Your task to perform on an android device: stop showing notifications on the lock screen Image 0: 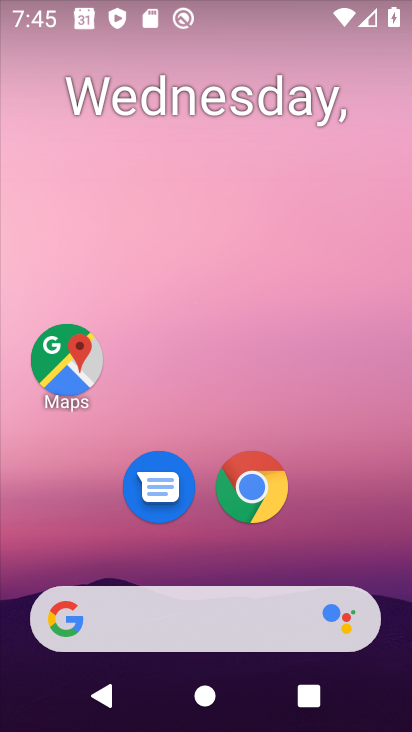
Step 0: drag from (377, 572) to (324, 7)
Your task to perform on an android device: stop showing notifications on the lock screen Image 1: 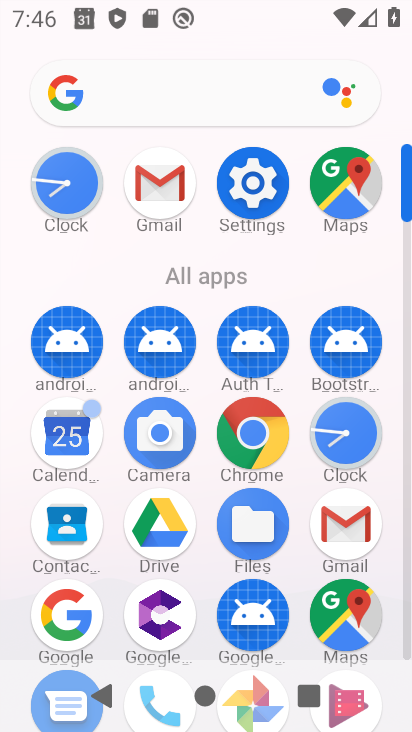
Step 1: click (256, 185)
Your task to perform on an android device: stop showing notifications on the lock screen Image 2: 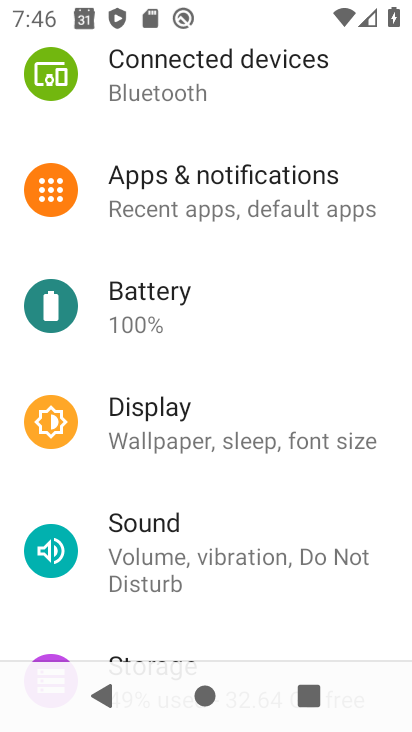
Step 2: click (250, 186)
Your task to perform on an android device: stop showing notifications on the lock screen Image 3: 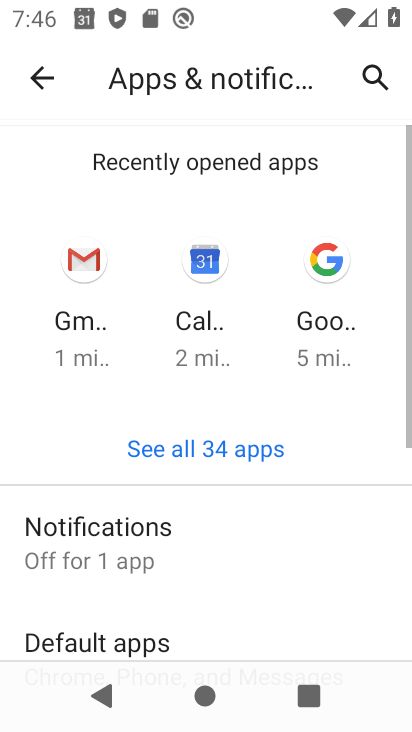
Step 3: drag from (213, 448) to (189, 174)
Your task to perform on an android device: stop showing notifications on the lock screen Image 4: 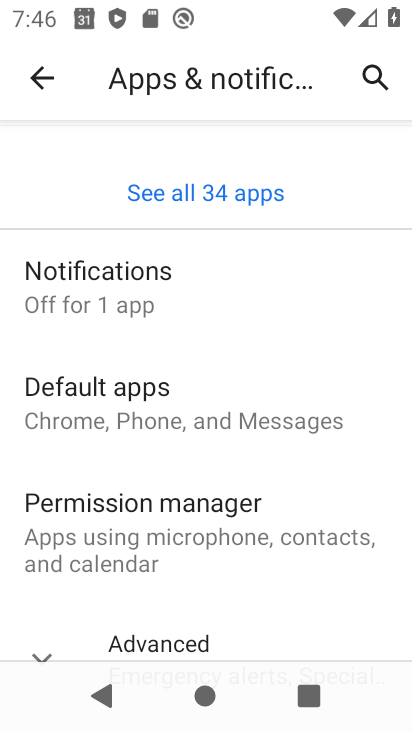
Step 4: click (75, 288)
Your task to perform on an android device: stop showing notifications on the lock screen Image 5: 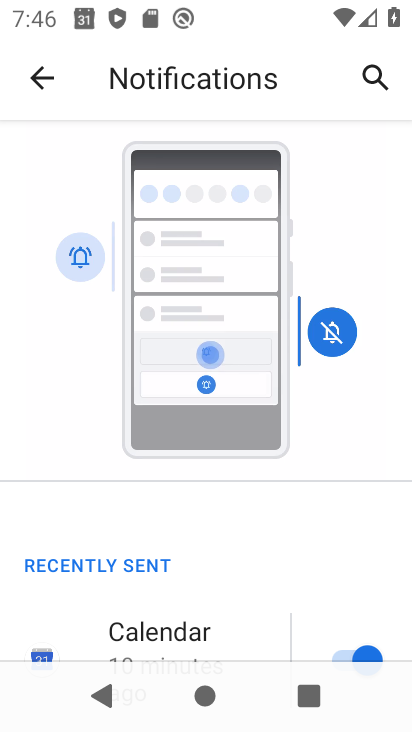
Step 5: drag from (122, 530) to (125, 90)
Your task to perform on an android device: stop showing notifications on the lock screen Image 6: 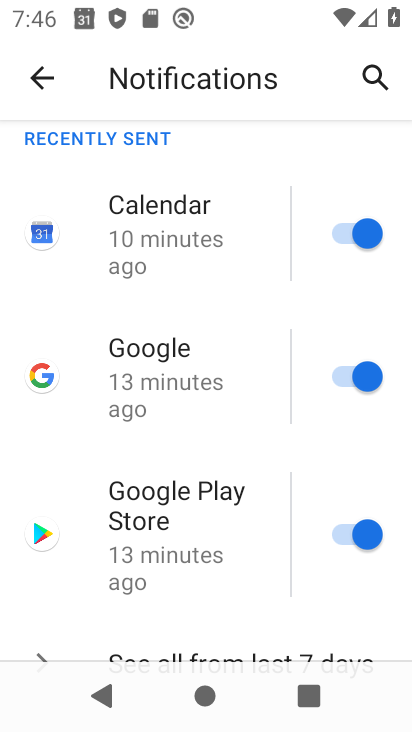
Step 6: drag from (120, 517) to (121, 103)
Your task to perform on an android device: stop showing notifications on the lock screen Image 7: 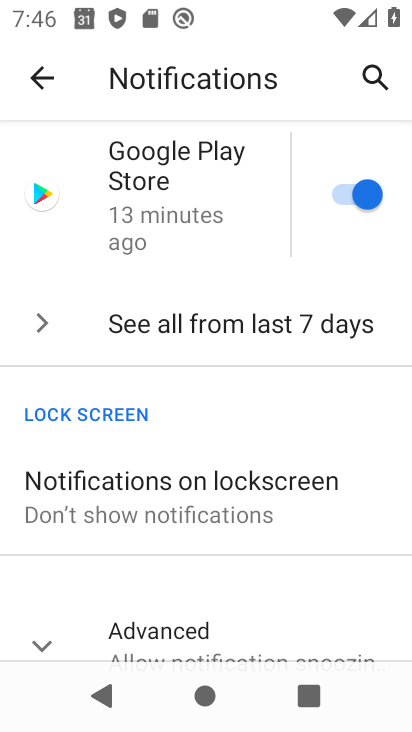
Step 7: drag from (121, 498) to (117, 164)
Your task to perform on an android device: stop showing notifications on the lock screen Image 8: 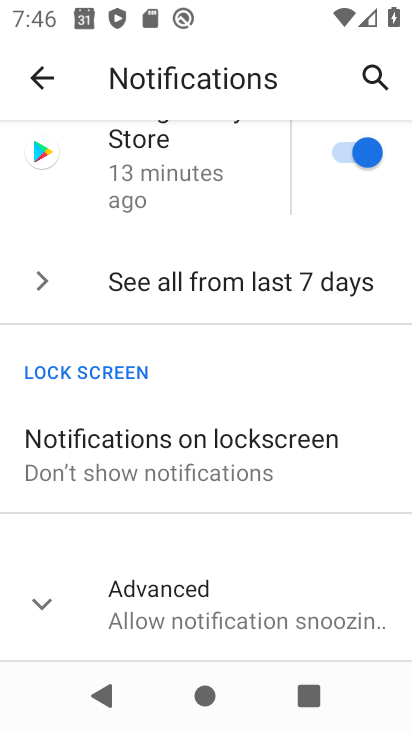
Step 8: click (112, 457)
Your task to perform on an android device: stop showing notifications on the lock screen Image 9: 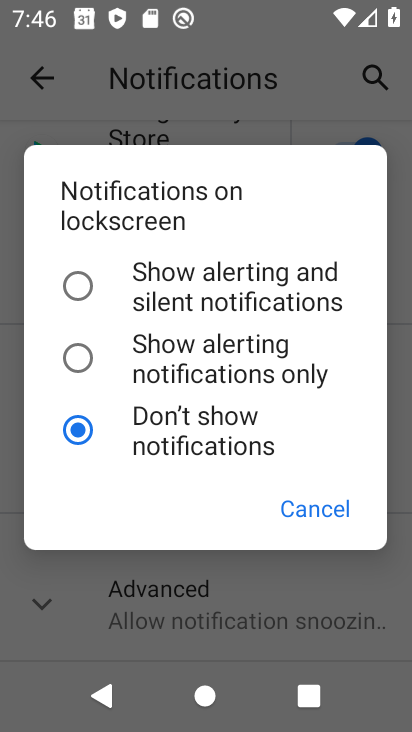
Step 9: task complete